Your task to perform on an android device: toggle sleep mode Image 0: 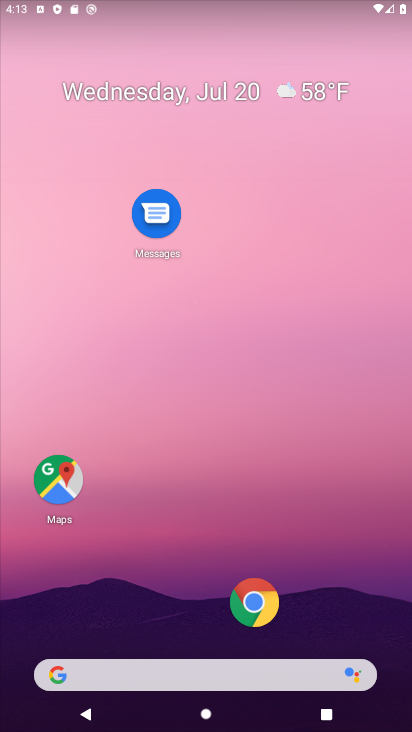
Step 0: drag from (168, 592) to (217, 50)
Your task to perform on an android device: toggle sleep mode Image 1: 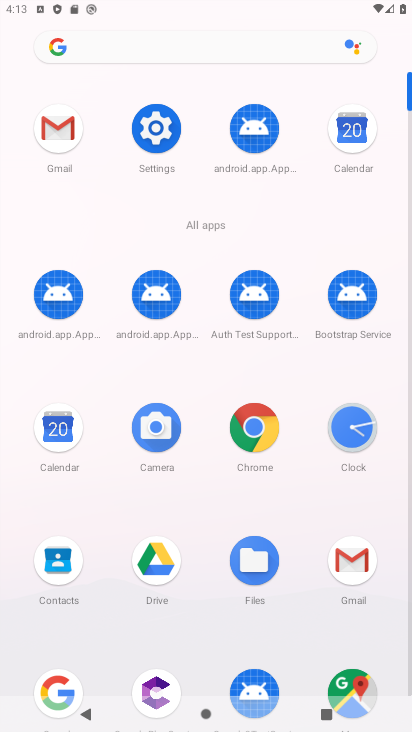
Step 1: click (161, 125)
Your task to perform on an android device: toggle sleep mode Image 2: 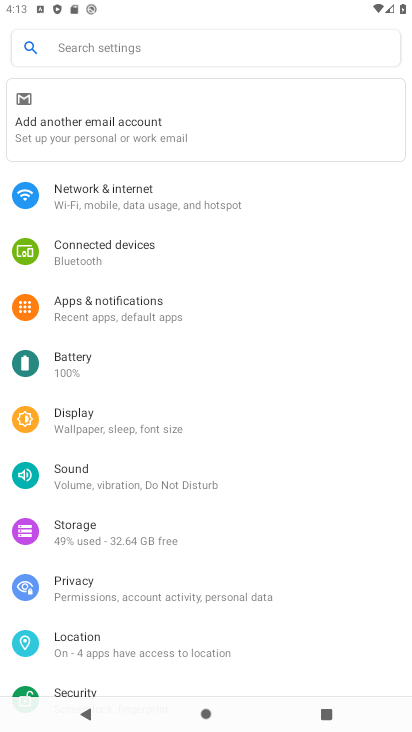
Step 2: task complete